Your task to perform on an android device: turn off airplane mode Image 0: 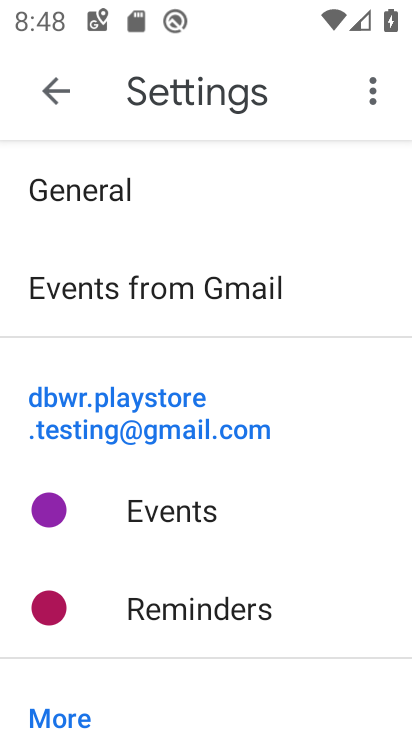
Step 0: press back button
Your task to perform on an android device: turn off airplane mode Image 1: 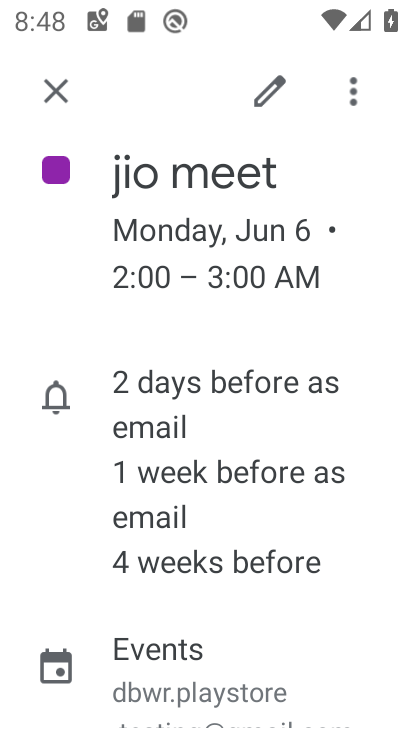
Step 1: task complete